Your task to perform on an android device: Open Reddit.com Image 0: 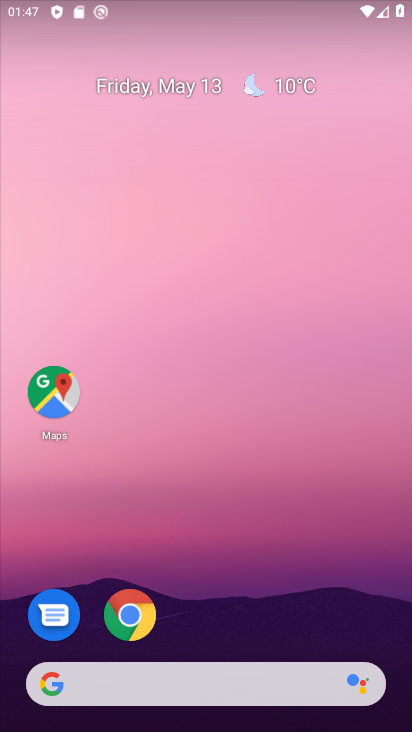
Step 0: click (150, 624)
Your task to perform on an android device: Open Reddit.com Image 1: 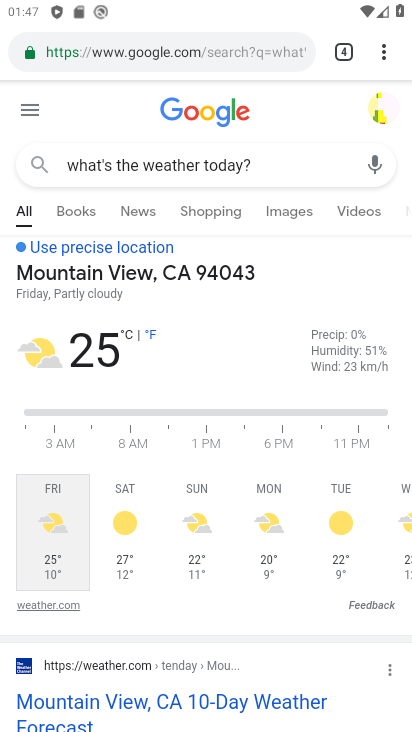
Step 1: click (276, 165)
Your task to perform on an android device: Open Reddit.com Image 2: 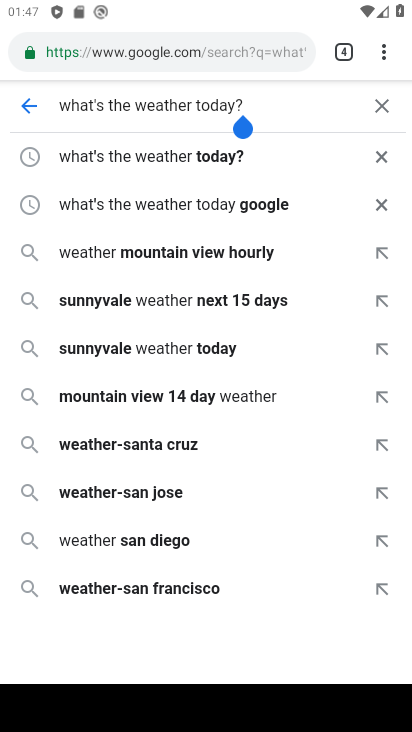
Step 2: click (379, 102)
Your task to perform on an android device: Open Reddit.com Image 3: 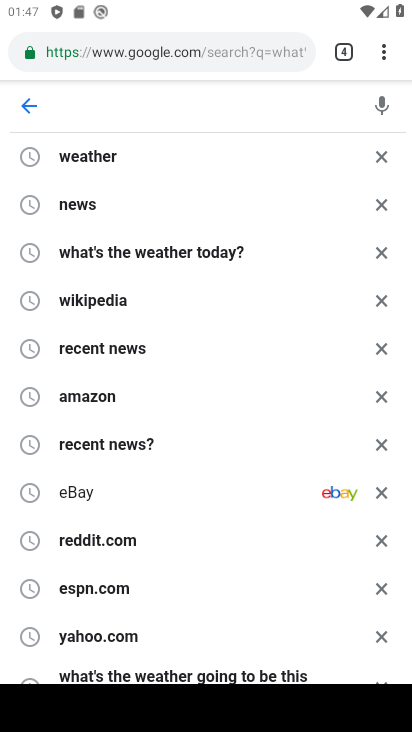
Step 3: click (229, 106)
Your task to perform on an android device: Open Reddit.com Image 4: 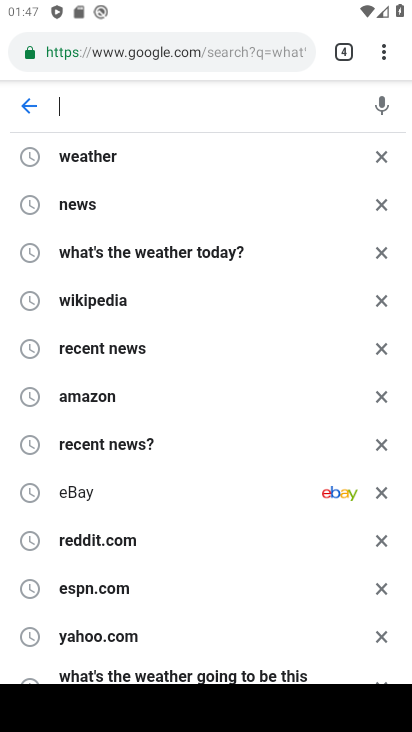
Step 4: type "reddit.com"
Your task to perform on an android device: Open Reddit.com Image 5: 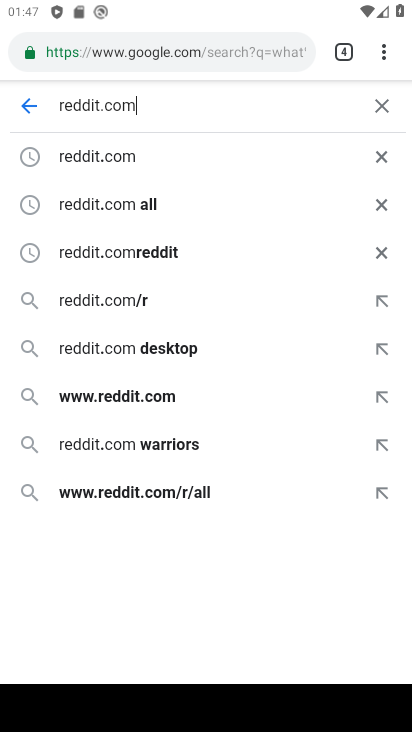
Step 5: click (106, 150)
Your task to perform on an android device: Open Reddit.com Image 6: 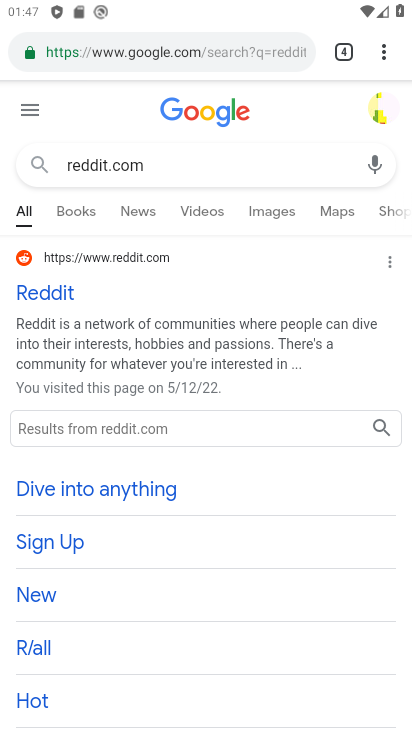
Step 6: click (43, 291)
Your task to perform on an android device: Open Reddit.com Image 7: 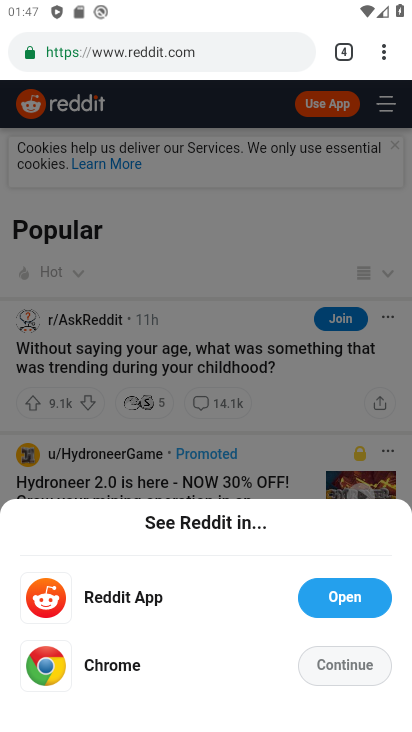
Step 7: click (350, 669)
Your task to perform on an android device: Open Reddit.com Image 8: 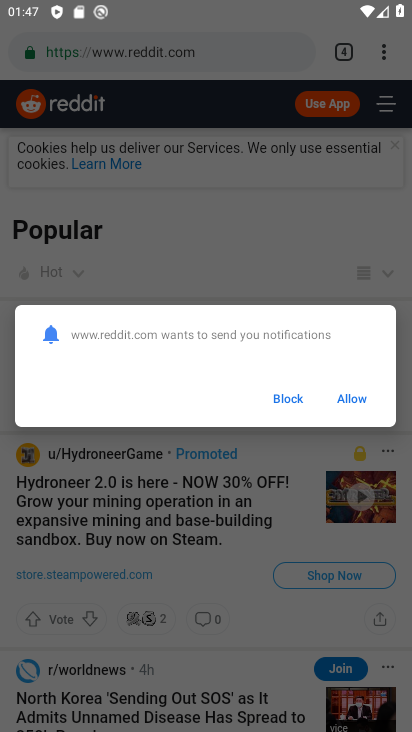
Step 8: click (293, 403)
Your task to perform on an android device: Open Reddit.com Image 9: 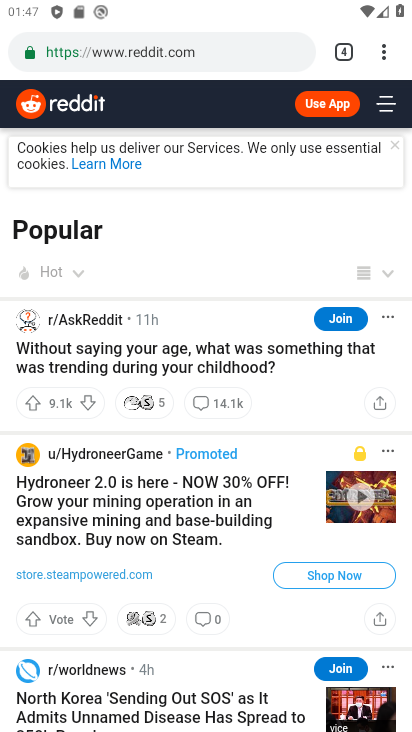
Step 9: task complete